Your task to perform on an android device: Open privacy settings Image 0: 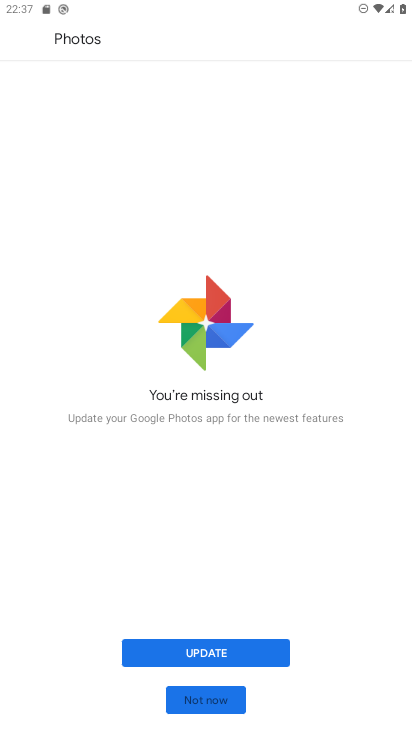
Step 0: press home button
Your task to perform on an android device: Open privacy settings Image 1: 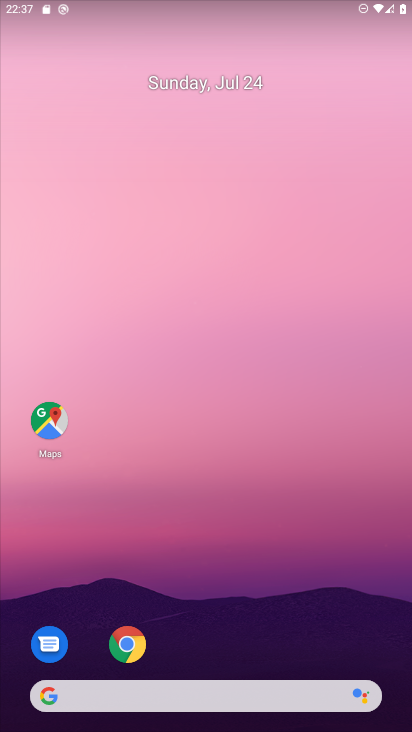
Step 1: drag from (396, 661) to (343, 234)
Your task to perform on an android device: Open privacy settings Image 2: 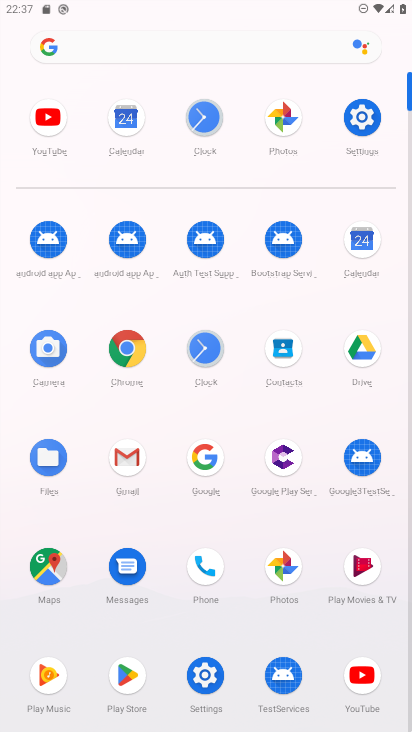
Step 2: click (206, 676)
Your task to perform on an android device: Open privacy settings Image 3: 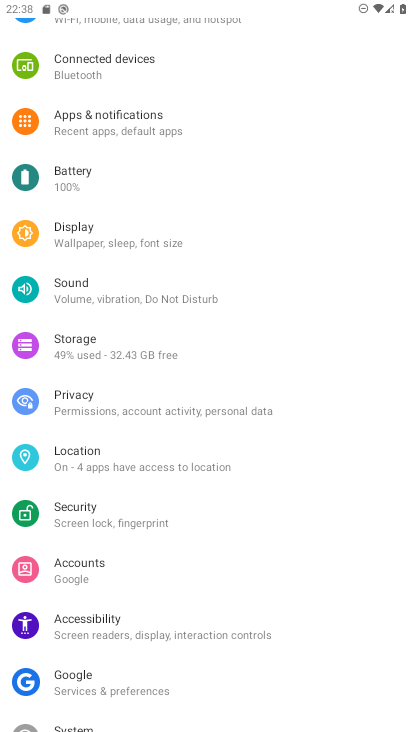
Step 3: click (85, 400)
Your task to perform on an android device: Open privacy settings Image 4: 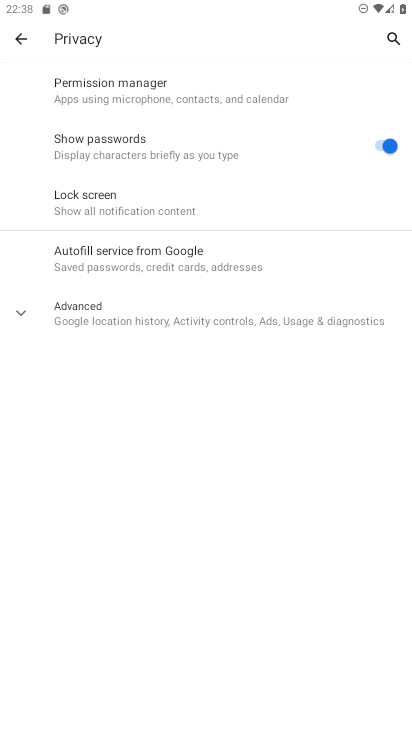
Step 4: click (18, 314)
Your task to perform on an android device: Open privacy settings Image 5: 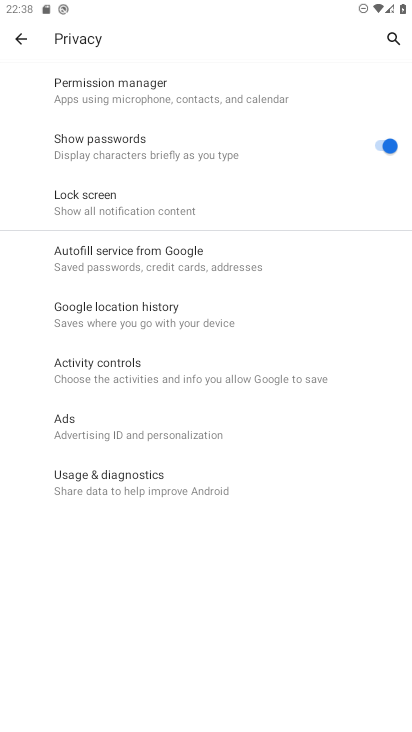
Step 5: task complete